Your task to perform on an android device: Go to eBay Image 0: 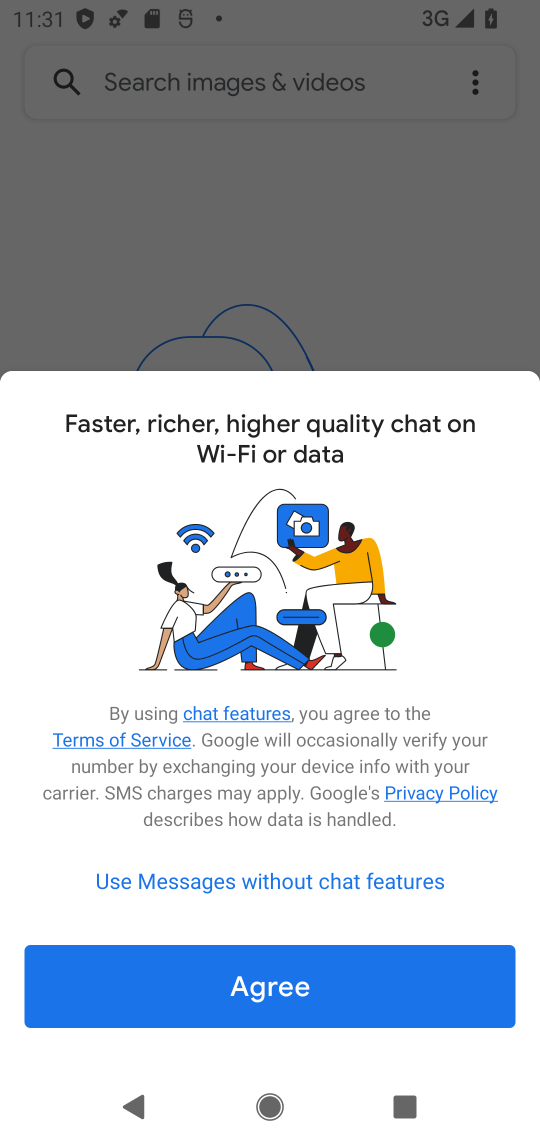
Step 0: press home button
Your task to perform on an android device: Go to eBay Image 1: 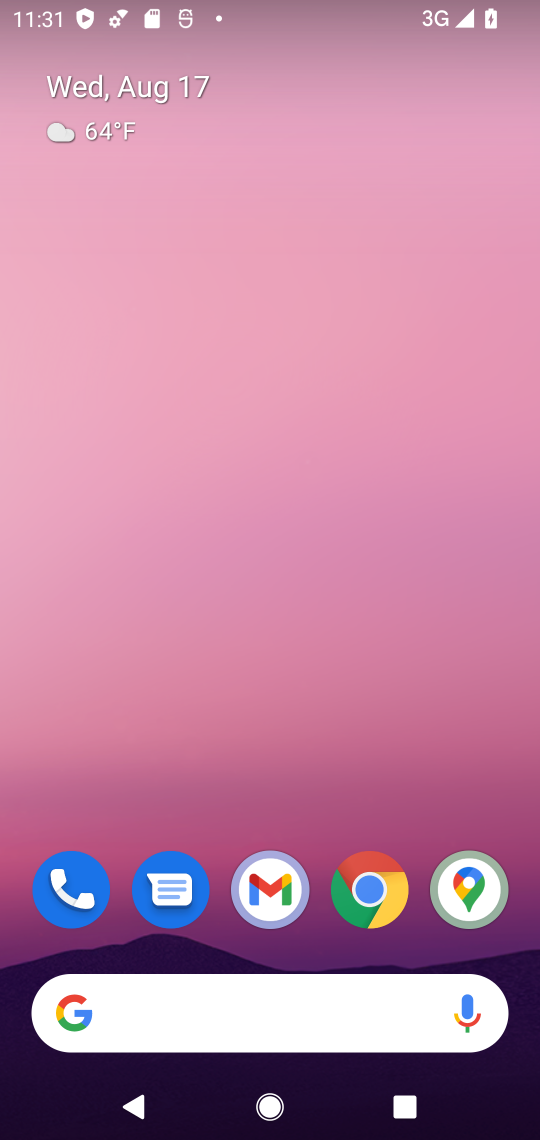
Step 1: click (331, 1022)
Your task to perform on an android device: Go to eBay Image 2: 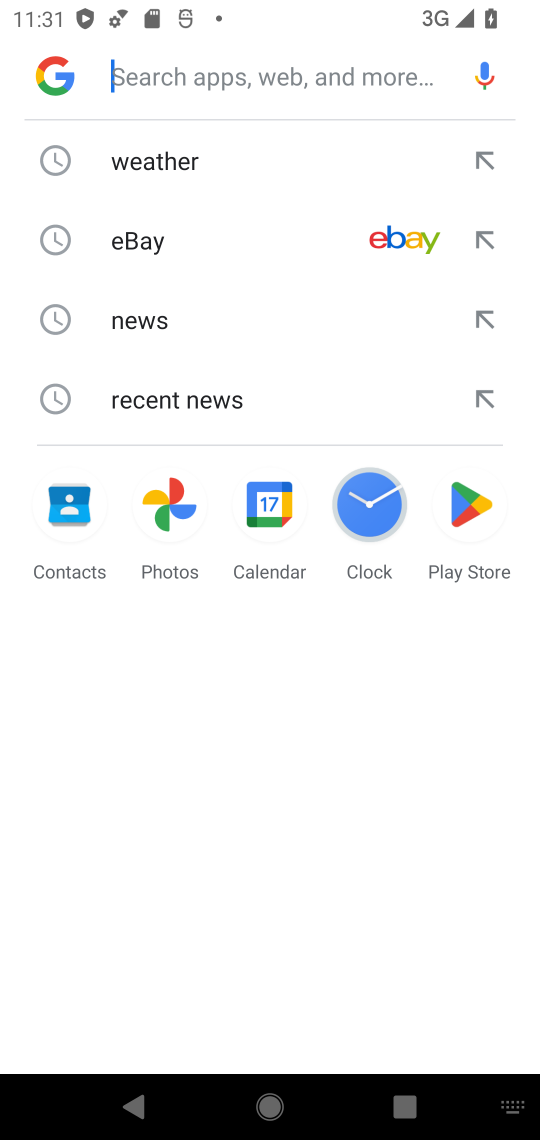
Step 2: click (313, 233)
Your task to perform on an android device: Go to eBay Image 3: 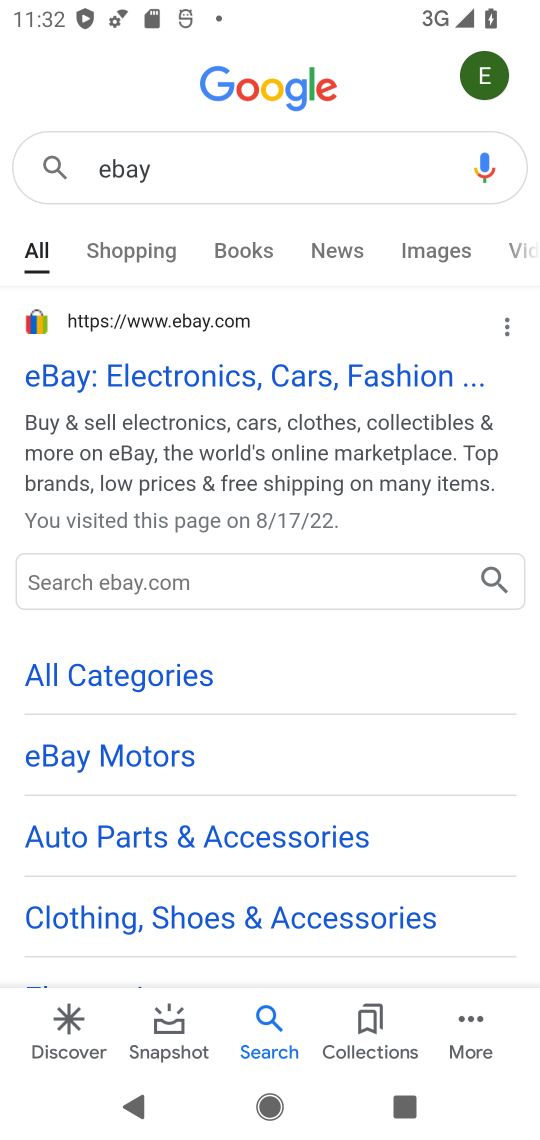
Step 3: click (74, 376)
Your task to perform on an android device: Go to eBay Image 4: 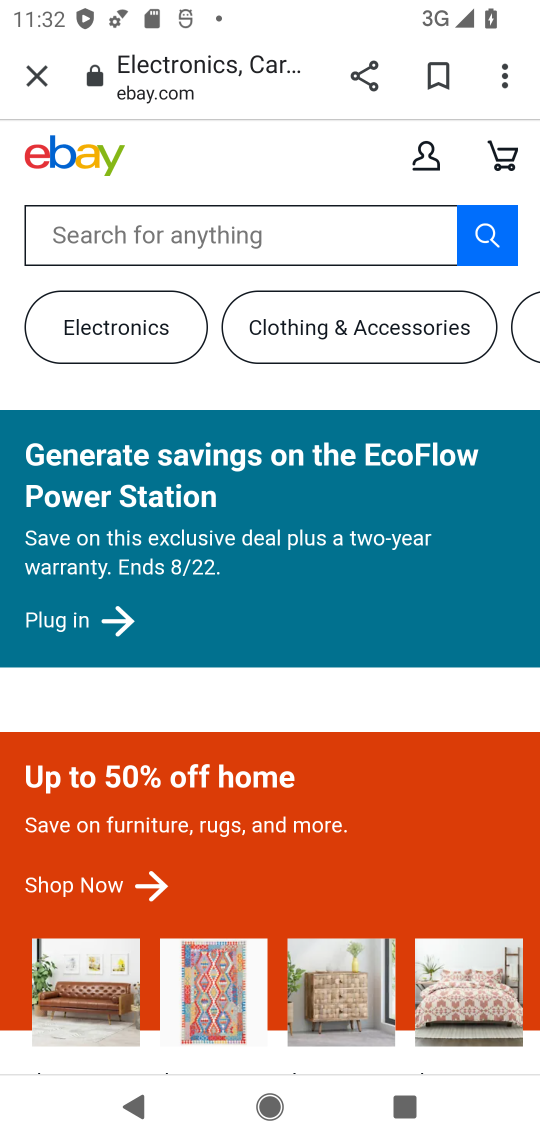
Step 4: task complete